Your task to perform on an android device: Open Yahoo.com Image 0: 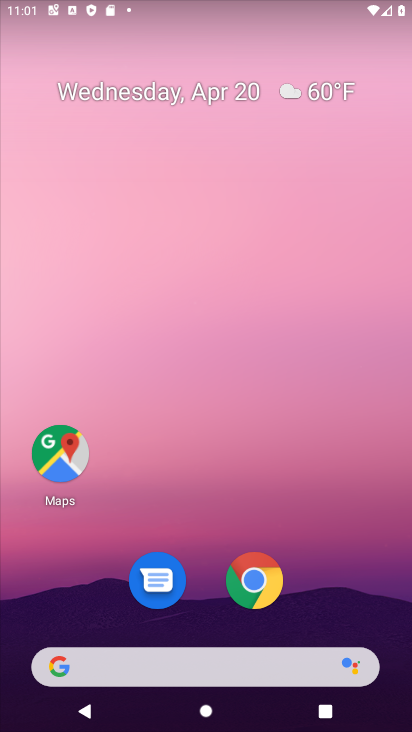
Step 0: click (274, 572)
Your task to perform on an android device: Open Yahoo.com Image 1: 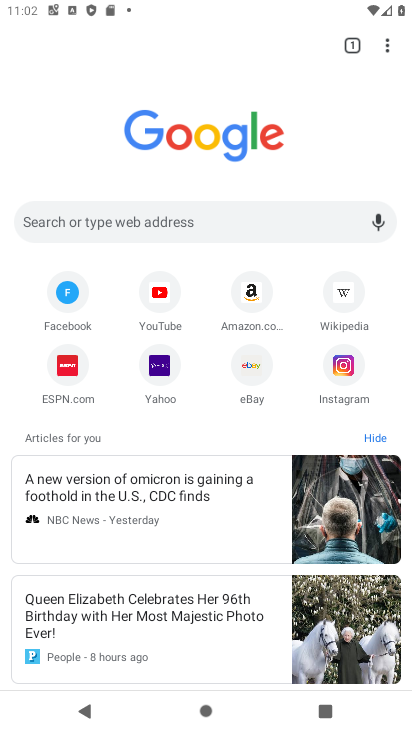
Step 1: click (183, 373)
Your task to perform on an android device: Open Yahoo.com Image 2: 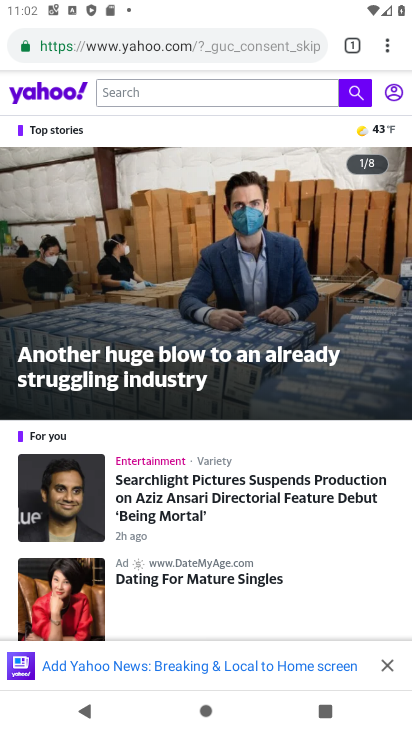
Step 2: task complete